Your task to perform on an android device: Open Google Chrome and click the shortcut for Amazon.com Image 0: 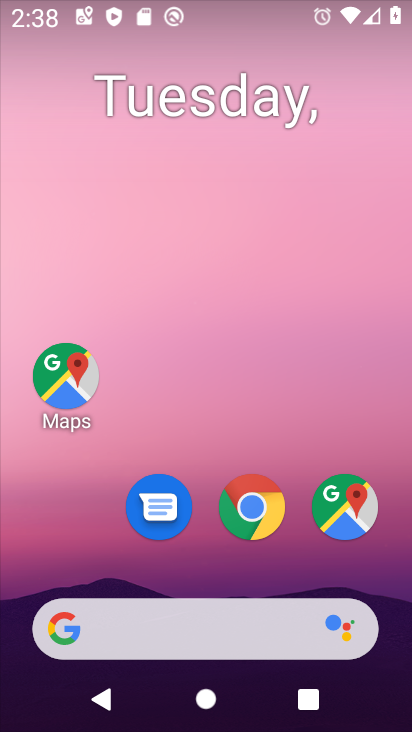
Step 0: click (233, 504)
Your task to perform on an android device: Open Google Chrome and click the shortcut for Amazon.com Image 1: 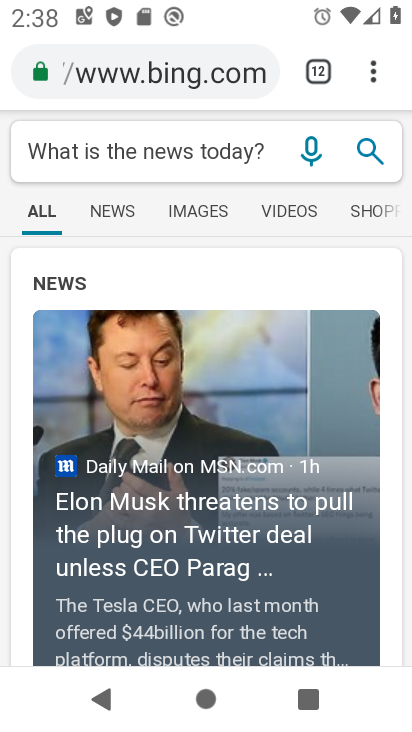
Step 1: click (369, 75)
Your task to perform on an android device: Open Google Chrome and click the shortcut for Amazon.com Image 2: 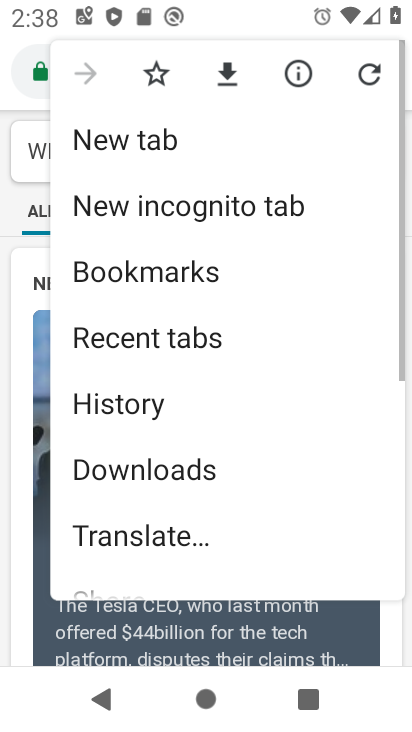
Step 2: click (172, 136)
Your task to perform on an android device: Open Google Chrome and click the shortcut for Amazon.com Image 3: 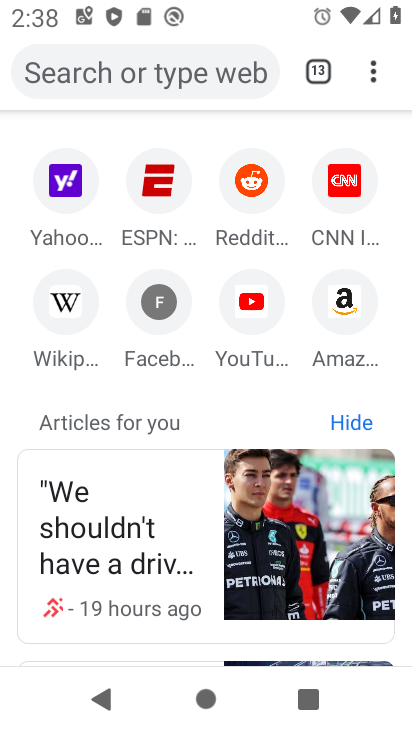
Step 3: click (354, 293)
Your task to perform on an android device: Open Google Chrome and click the shortcut for Amazon.com Image 4: 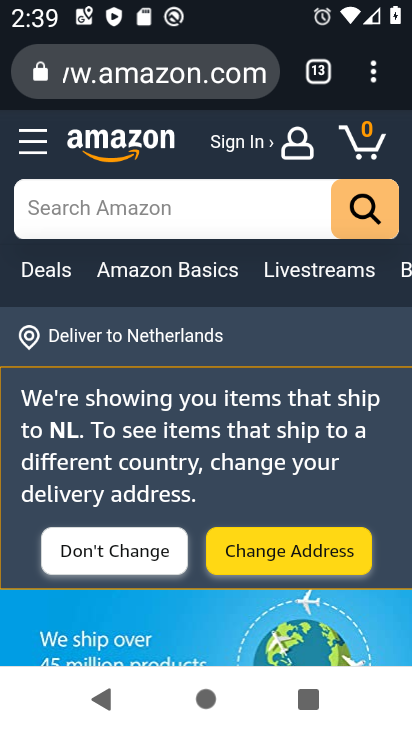
Step 4: task complete